Your task to perform on an android device: Open the web browser Image 0: 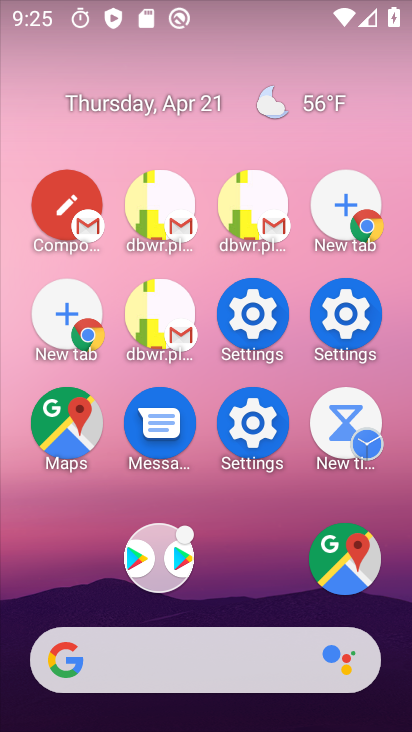
Step 0: drag from (264, 692) to (206, 18)
Your task to perform on an android device: Open the web browser Image 1: 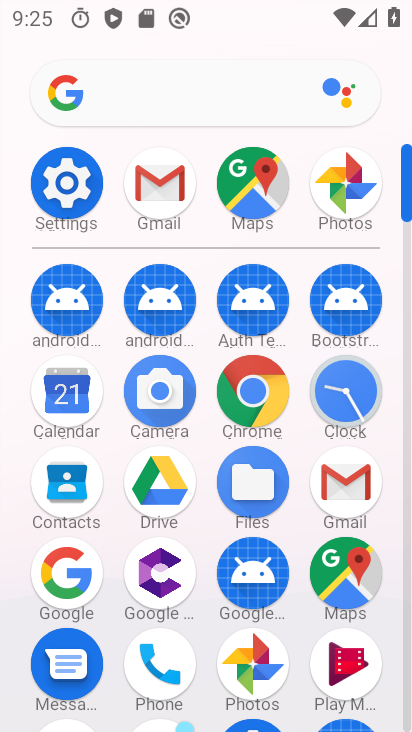
Step 1: click (243, 388)
Your task to perform on an android device: Open the web browser Image 2: 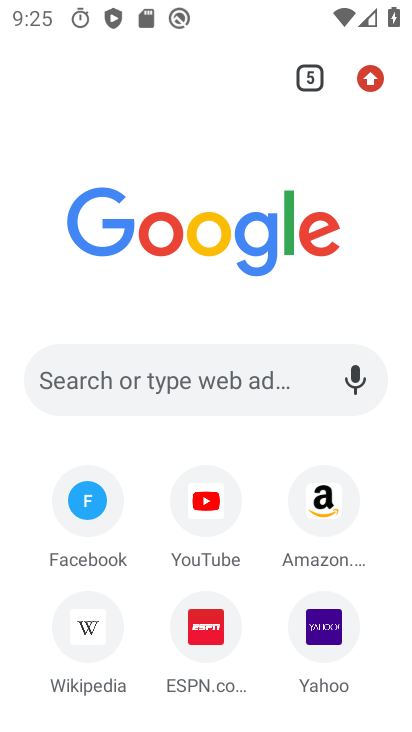
Step 2: click (179, 388)
Your task to perform on an android device: Open the web browser Image 3: 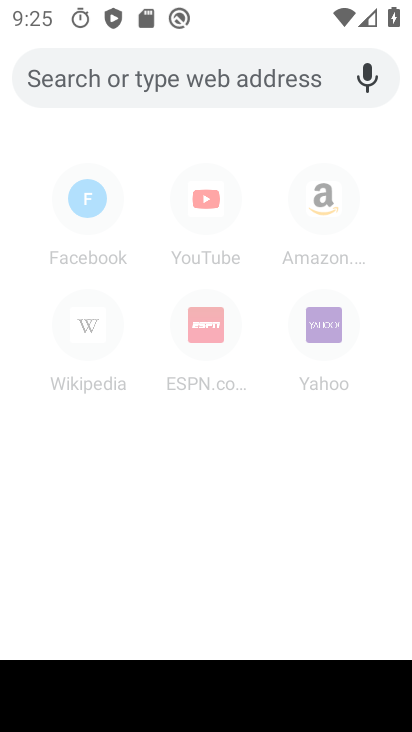
Step 3: task complete